Your task to perform on an android device: change the clock display to show seconds Image 0: 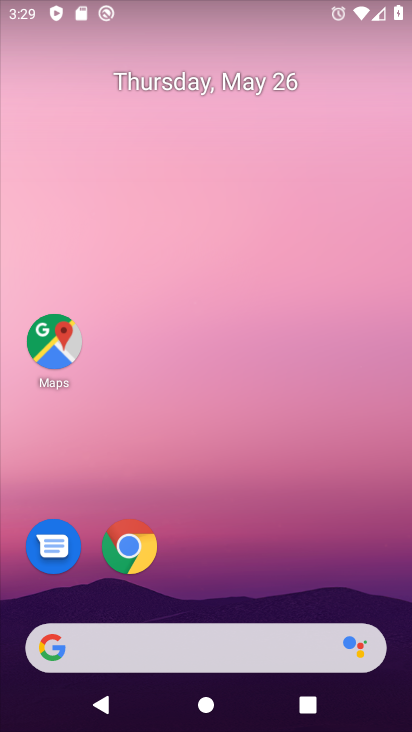
Step 0: drag from (401, 665) to (385, 146)
Your task to perform on an android device: change the clock display to show seconds Image 1: 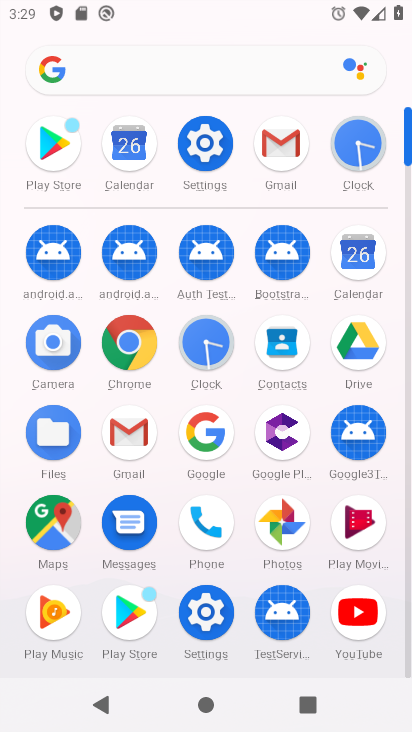
Step 1: click (213, 345)
Your task to perform on an android device: change the clock display to show seconds Image 2: 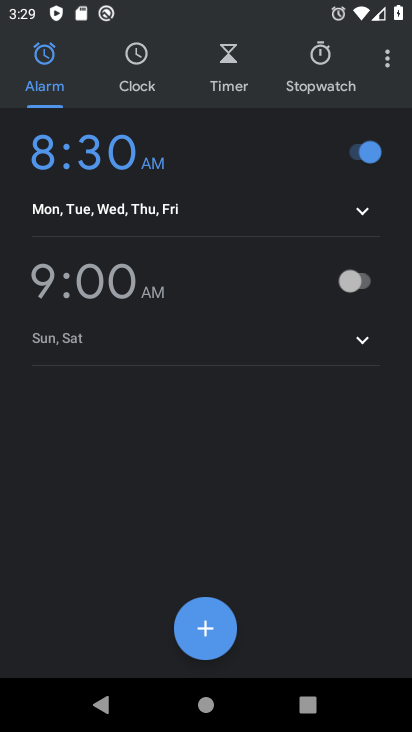
Step 2: click (385, 55)
Your task to perform on an android device: change the clock display to show seconds Image 3: 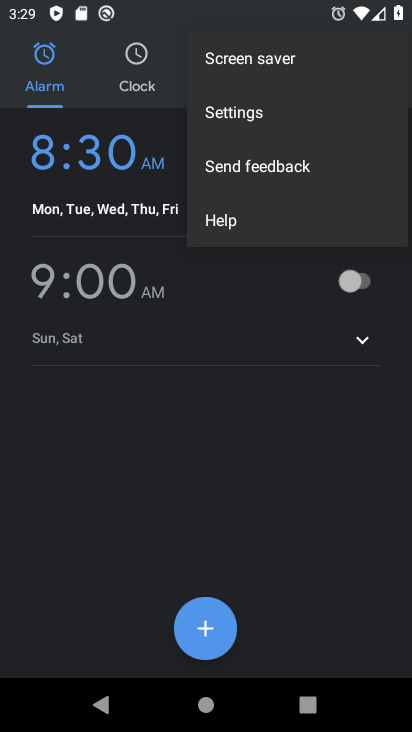
Step 3: click (245, 117)
Your task to perform on an android device: change the clock display to show seconds Image 4: 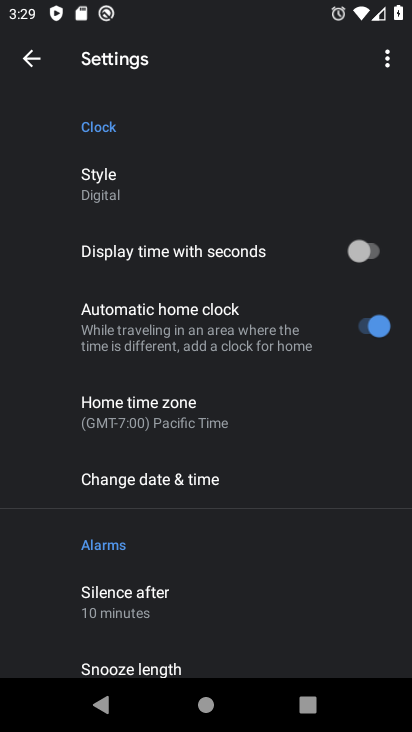
Step 4: click (373, 251)
Your task to perform on an android device: change the clock display to show seconds Image 5: 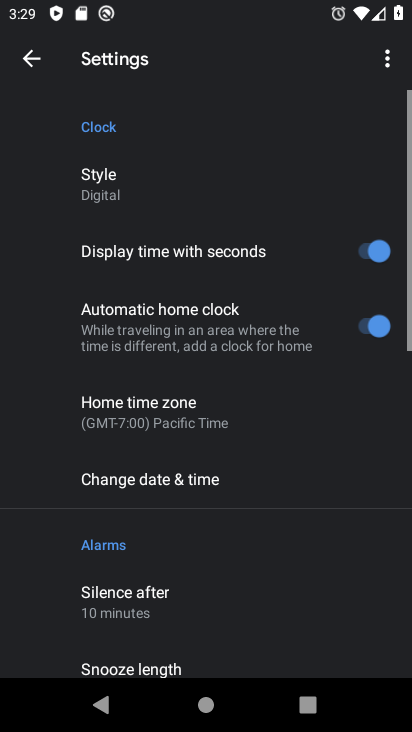
Step 5: task complete